Your task to perform on an android device: change timer sound Image 0: 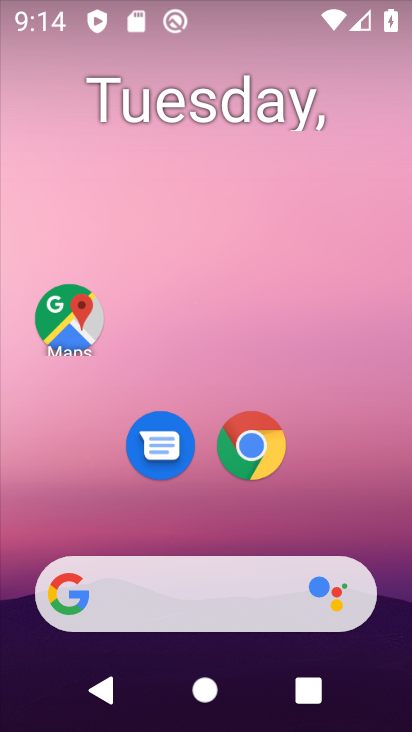
Step 0: drag from (196, 490) to (253, 22)
Your task to perform on an android device: change timer sound Image 1: 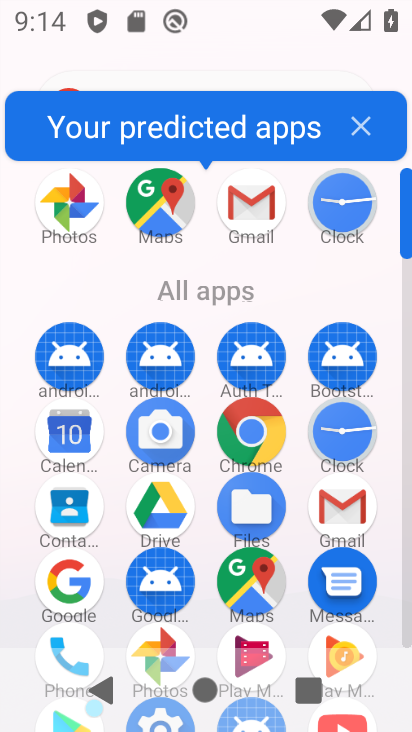
Step 1: click (330, 204)
Your task to perform on an android device: change timer sound Image 2: 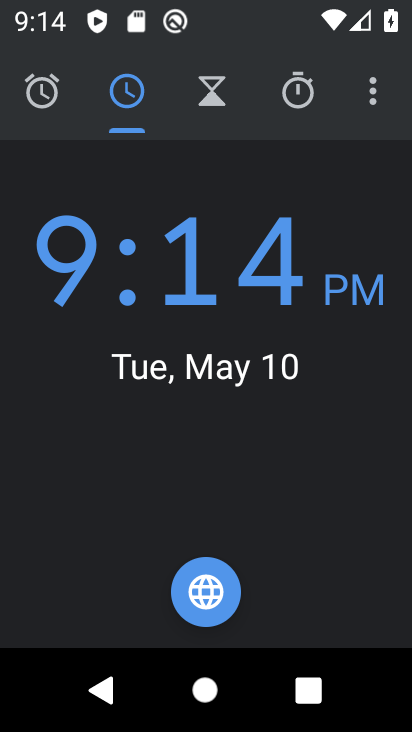
Step 2: click (375, 97)
Your task to perform on an android device: change timer sound Image 3: 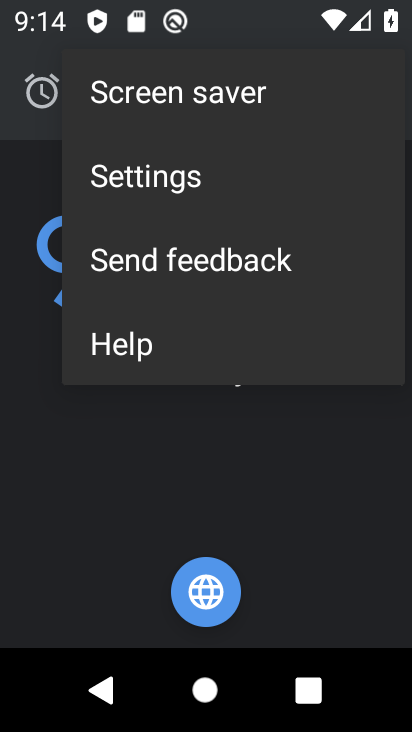
Step 3: click (198, 179)
Your task to perform on an android device: change timer sound Image 4: 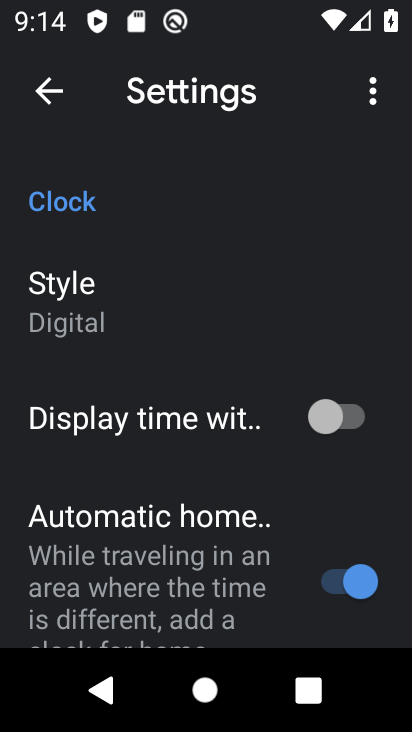
Step 4: drag from (172, 572) to (242, 202)
Your task to perform on an android device: change timer sound Image 5: 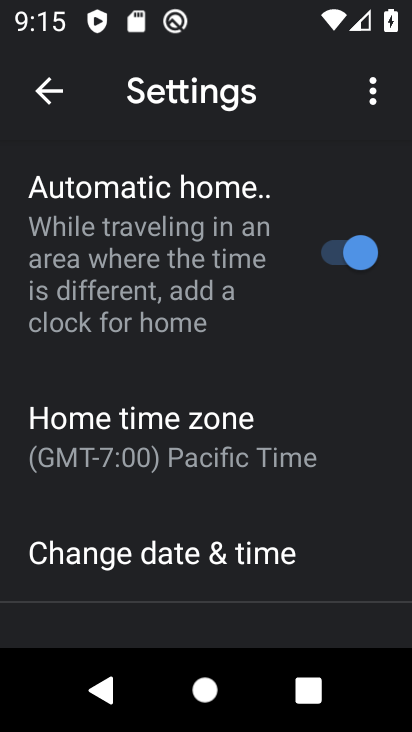
Step 5: drag from (176, 454) to (243, 86)
Your task to perform on an android device: change timer sound Image 6: 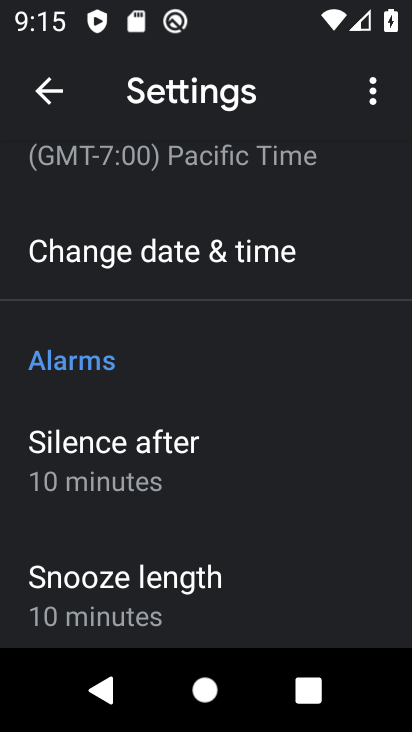
Step 6: drag from (147, 485) to (223, 145)
Your task to perform on an android device: change timer sound Image 7: 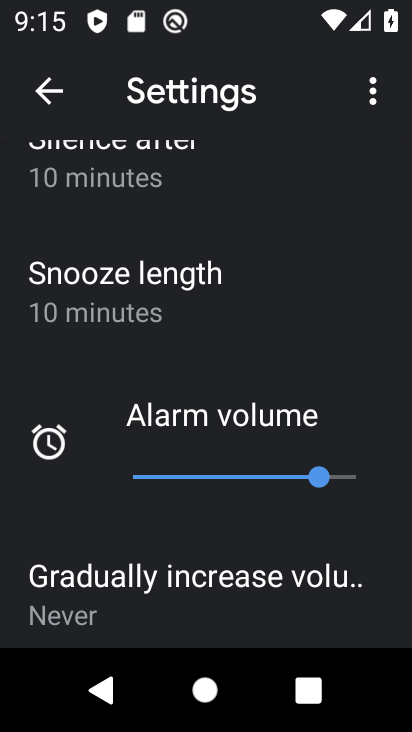
Step 7: drag from (159, 553) to (216, 204)
Your task to perform on an android device: change timer sound Image 8: 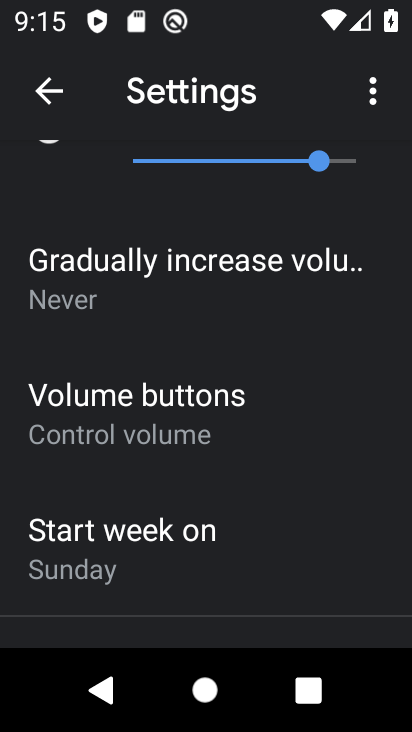
Step 8: drag from (175, 513) to (254, 148)
Your task to perform on an android device: change timer sound Image 9: 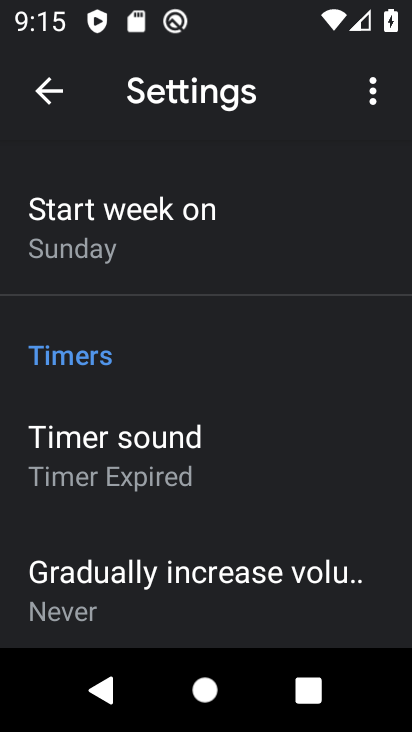
Step 9: click (157, 478)
Your task to perform on an android device: change timer sound Image 10: 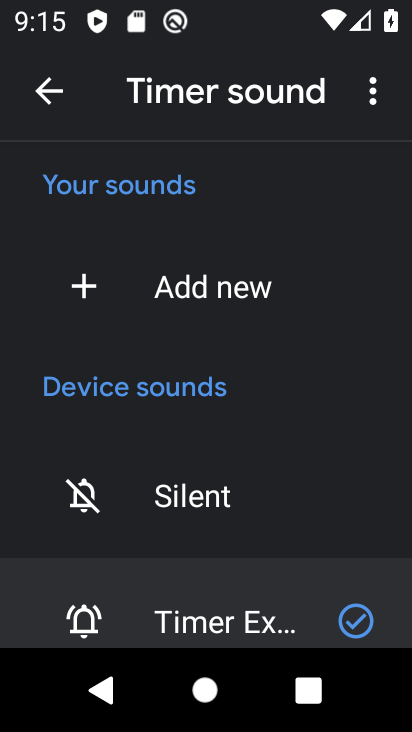
Step 10: drag from (149, 528) to (237, 176)
Your task to perform on an android device: change timer sound Image 11: 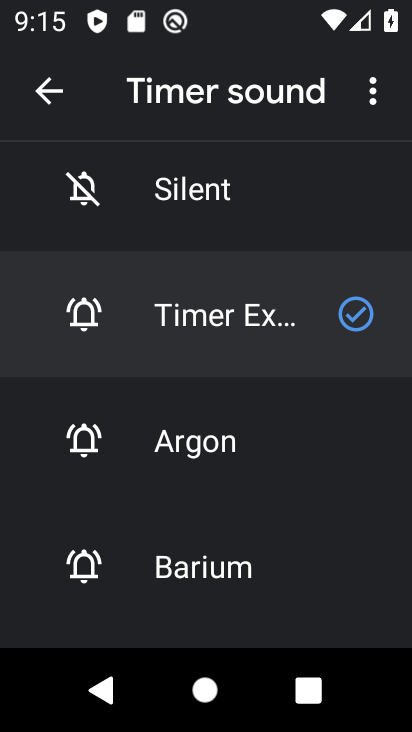
Step 11: click (212, 415)
Your task to perform on an android device: change timer sound Image 12: 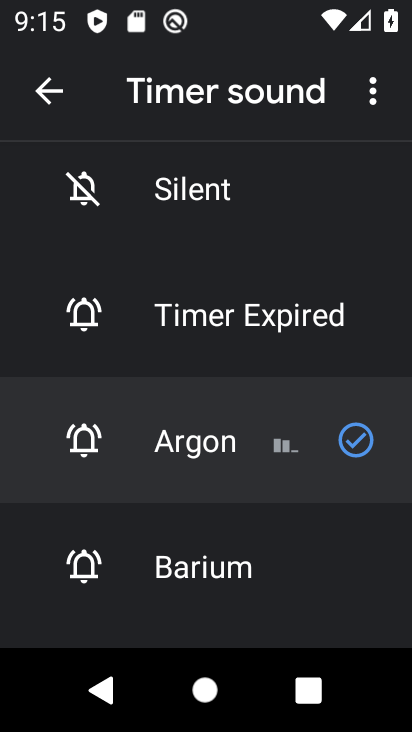
Step 12: task complete